Your task to perform on an android device: Set the phone to "Do not disturb". Image 0: 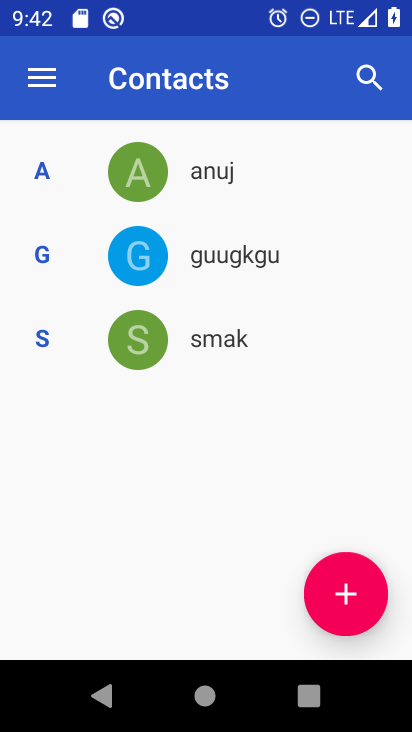
Step 0: press home button
Your task to perform on an android device: Set the phone to "Do not disturb". Image 1: 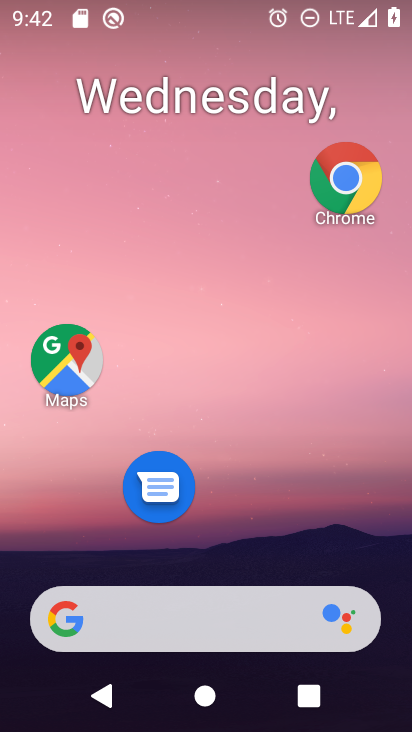
Step 1: task complete